Your task to perform on an android device: Go to calendar. Show me events next week Image 0: 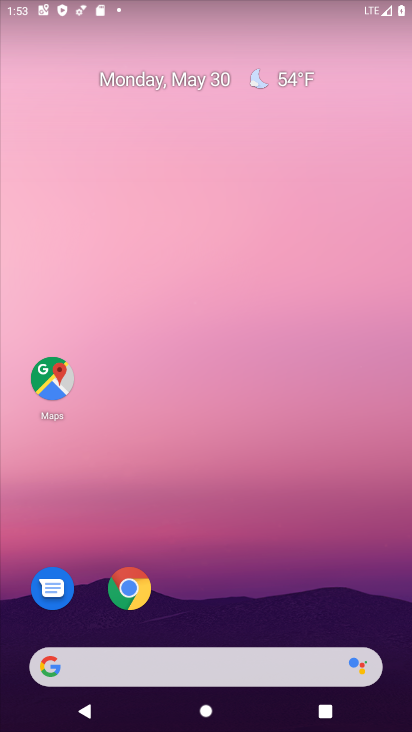
Step 0: drag from (256, 583) to (303, 65)
Your task to perform on an android device: Go to calendar. Show me events next week Image 1: 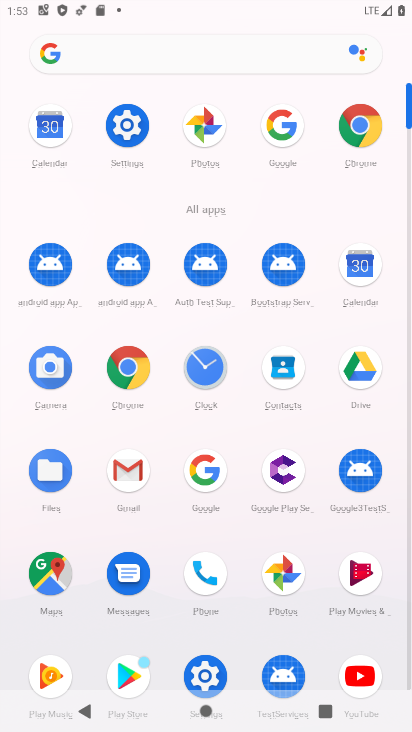
Step 1: click (361, 265)
Your task to perform on an android device: Go to calendar. Show me events next week Image 2: 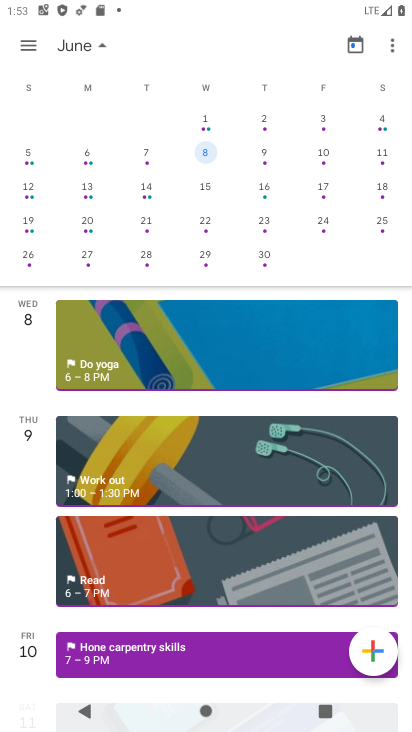
Step 2: drag from (18, 230) to (108, 235)
Your task to perform on an android device: Go to calendar. Show me events next week Image 3: 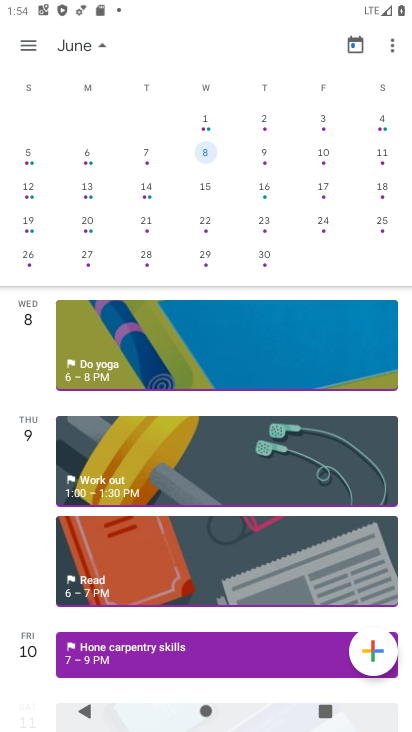
Step 3: click (257, 121)
Your task to perform on an android device: Go to calendar. Show me events next week Image 4: 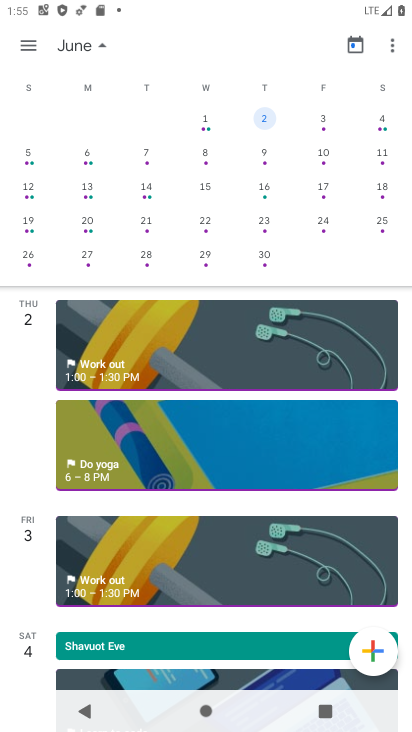
Step 4: task complete